Your task to perform on an android device: turn smart compose on in the gmail app Image 0: 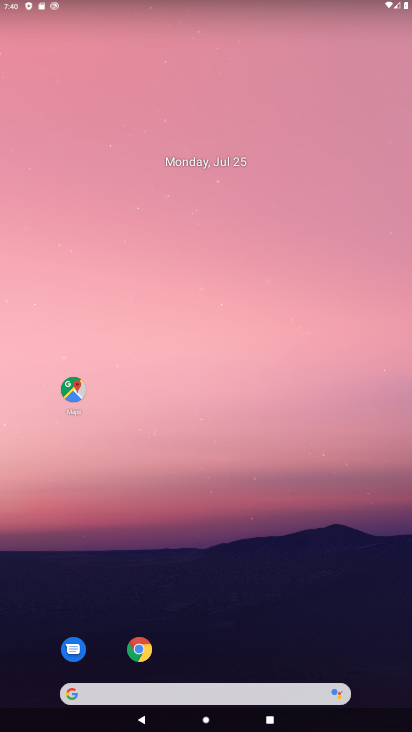
Step 0: drag from (384, 681) to (299, 58)
Your task to perform on an android device: turn smart compose on in the gmail app Image 1: 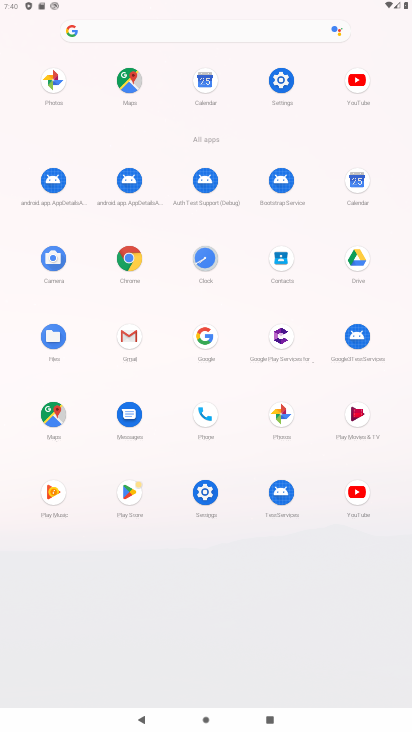
Step 1: click (129, 336)
Your task to perform on an android device: turn smart compose on in the gmail app Image 2: 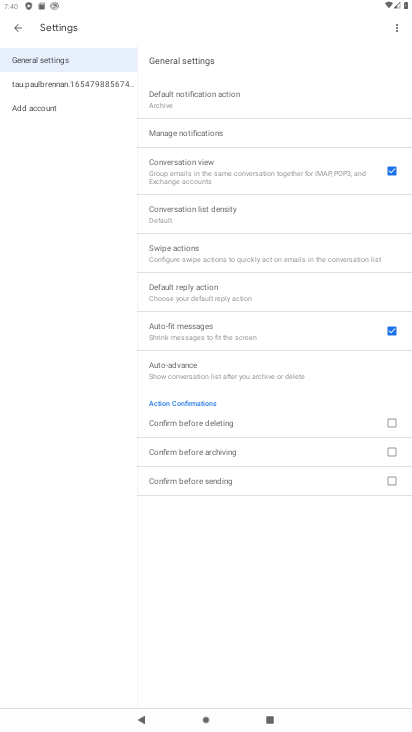
Step 2: click (60, 82)
Your task to perform on an android device: turn smart compose on in the gmail app Image 3: 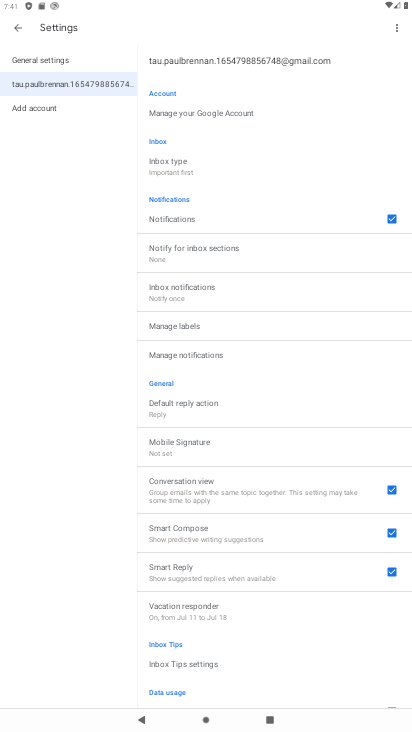
Step 3: task complete